Your task to perform on an android device: Open wifi settings Image 0: 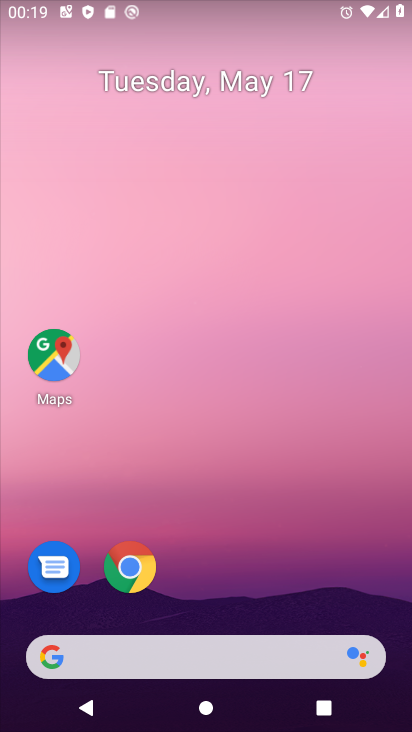
Step 0: drag from (229, 535) to (60, 32)
Your task to perform on an android device: Open wifi settings Image 1: 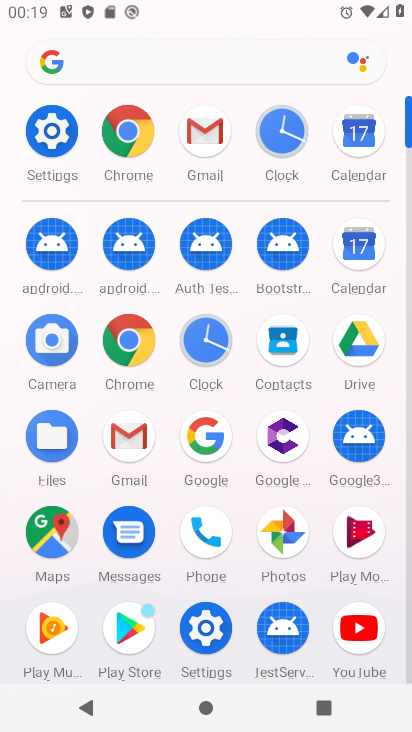
Step 1: click (45, 131)
Your task to perform on an android device: Open wifi settings Image 2: 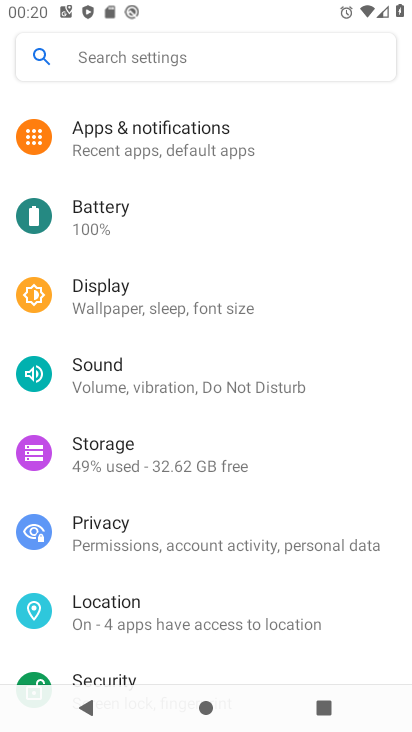
Step 2: drag from (181, 180) to (75, 586)
Your task to perform on an android device: Open wifi settings Image 3: 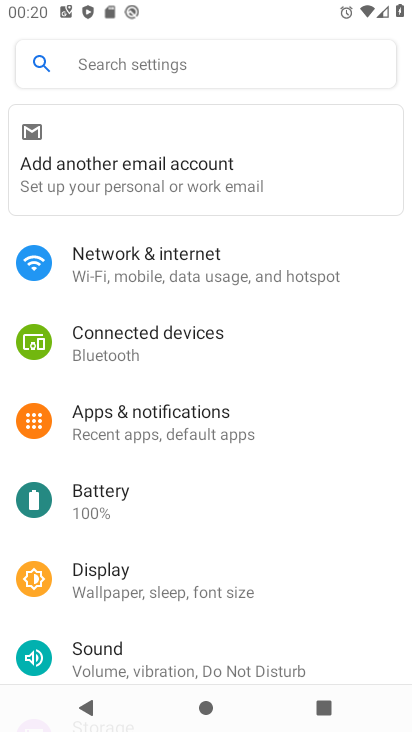
Step 3: click (173, 248)
Your task to perform on an android device: Open wifi settings Image 4: 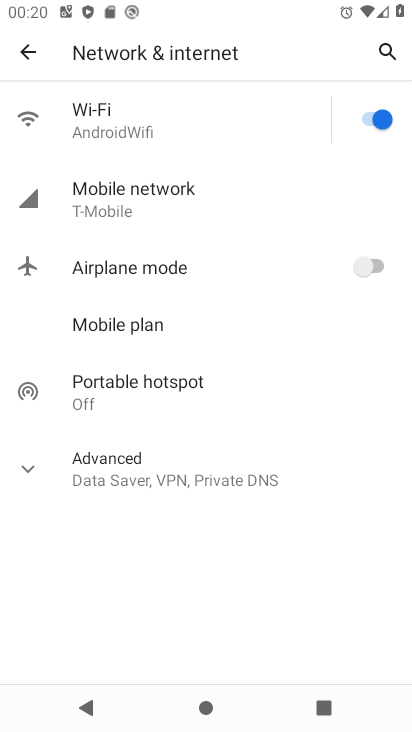
Step 4: click (101, 112)
Your task to perform on an android device: Open wifi settings Image 5: 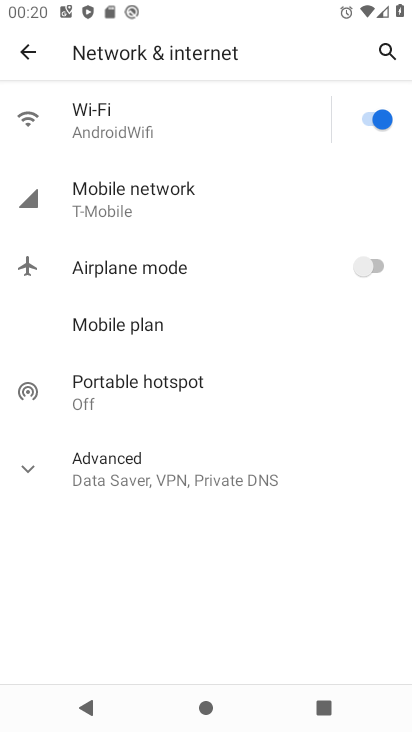
Step 5: click (101, 112)
Your task to perform on an android device: Open wifi settings Image 6: 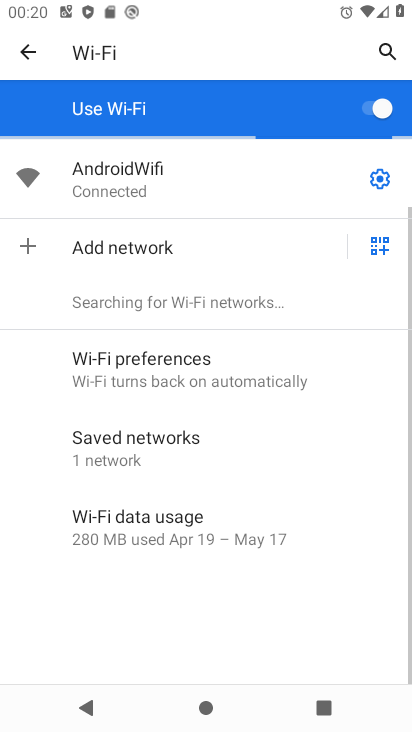
Step 6: task complete